Your task to perform on an android device: Go to calendar. Show me events next week Image 0: 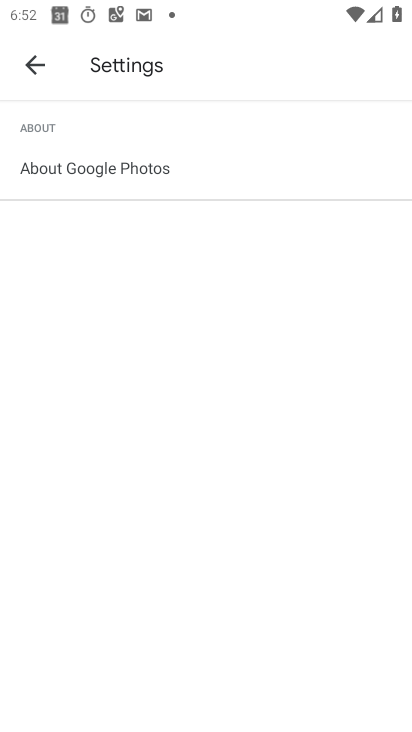
Step 0: press home button
Your task to perform on an android device: Go to calendar. Show me events next week Image 1: 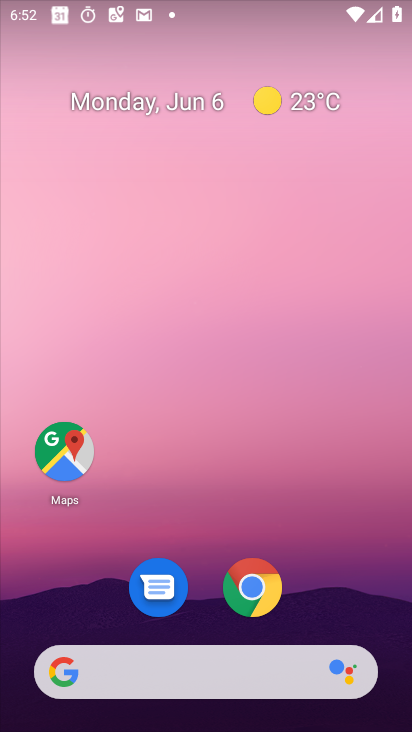
Step 1: click (323, 350)
Your task to perform on an android device: Go to calendar. Show me events next week Image 2: 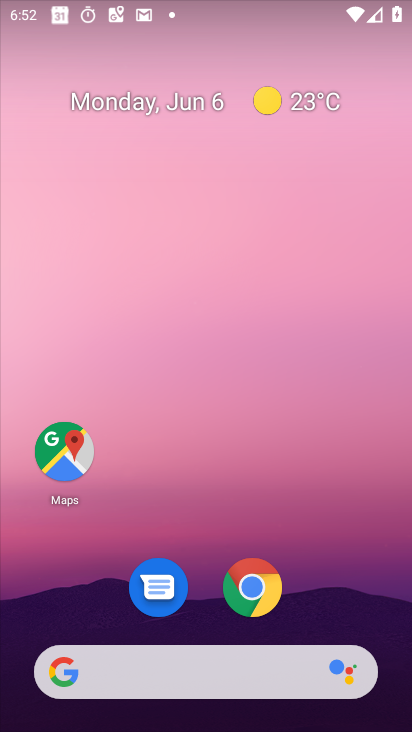
Step 2: drag from (401, 638) to (233, 65)
Your task to perform on an android device: Go to calendar. Show me events next week Image 3: 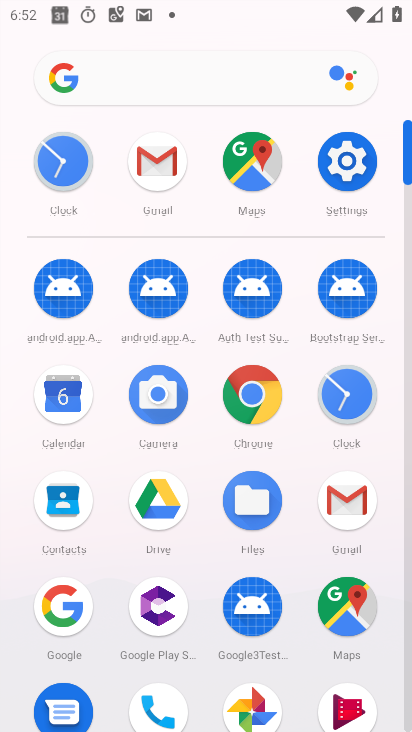
Step 3: click (61, 403)
Your task to perform on an android device: Go to calendar. Show me events next week Image 4: 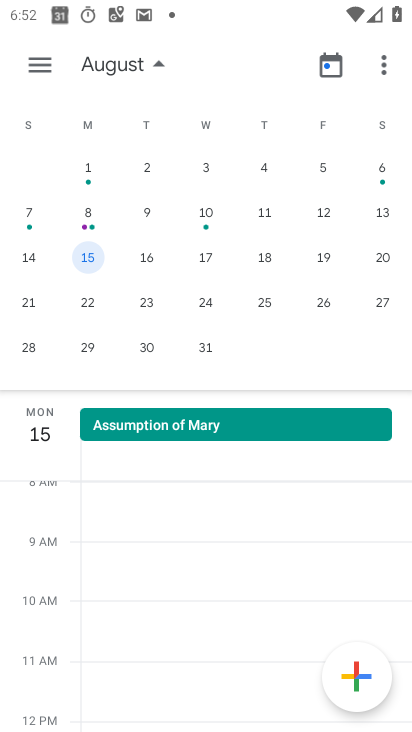
Step 4: task complete